Your task to perform on an android device: change the clock display to digital Image 0: 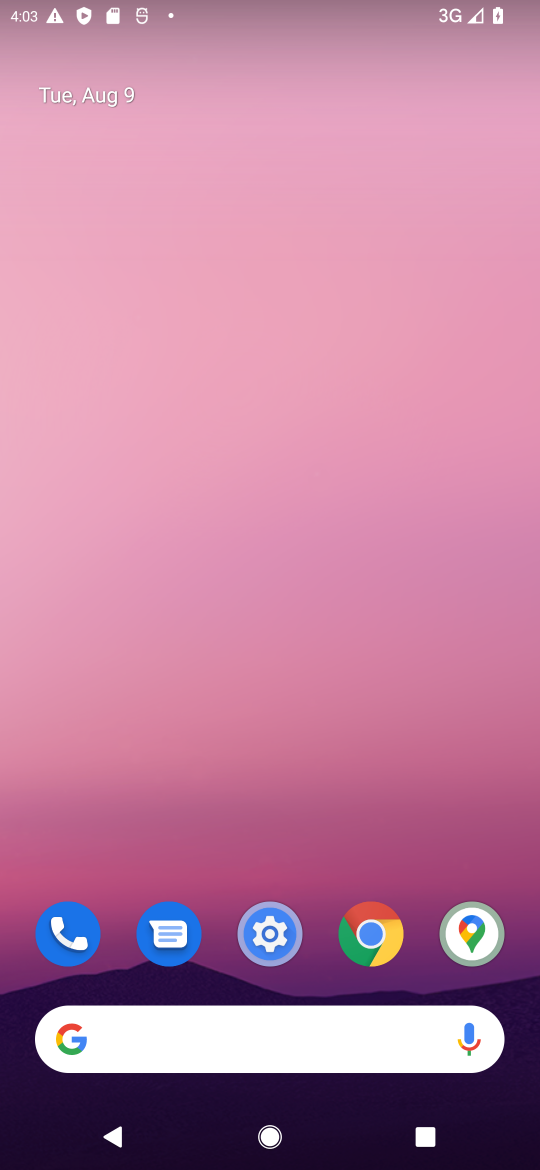
Step 0: click (256, 938)
Your task to perform on an android device: change the clock display to digital Image 1: 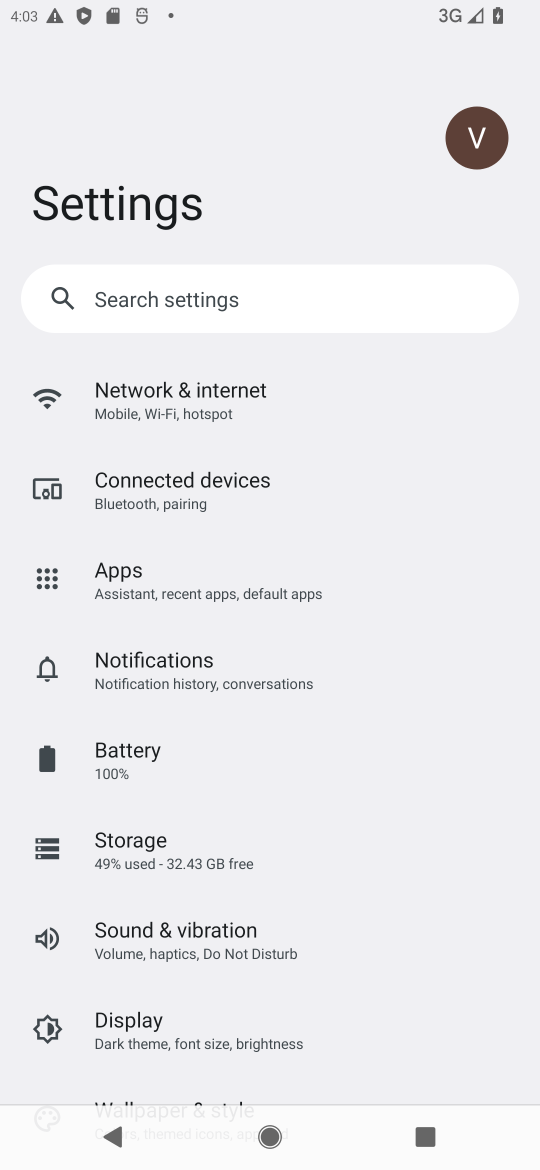
Step 1: click (233, 1016)
Your task to perform on an android device: change the clock display to digital Image 2: 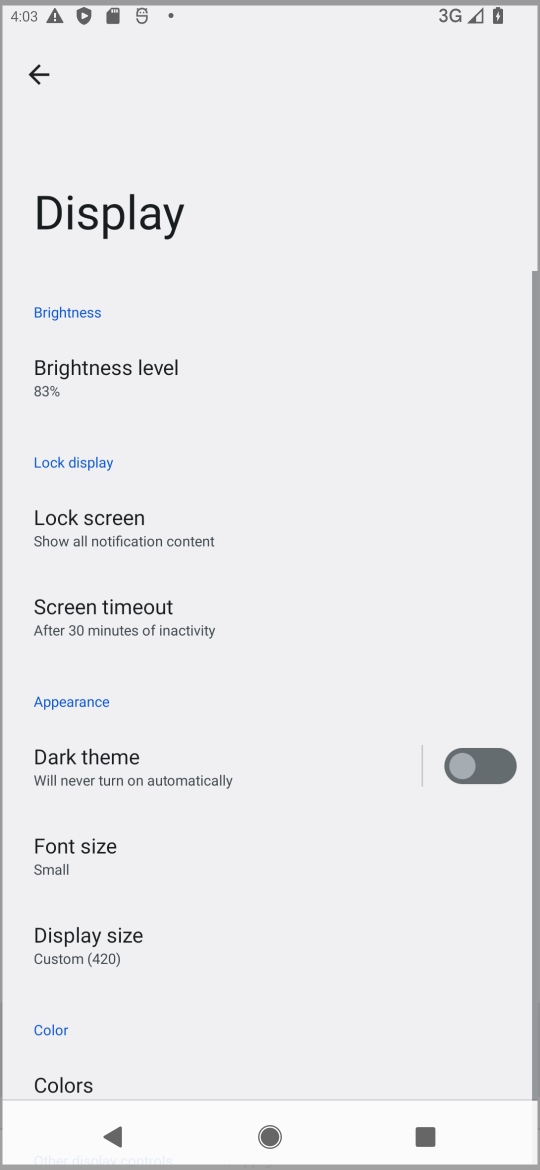
Step 2: task complete